Your task to perform on an android device: Clear the cart on bestbuy.com. Search for "razer blackwidow" on bestbuy.com, select the first entry, add it to the cart, then select checkout. Image 0: 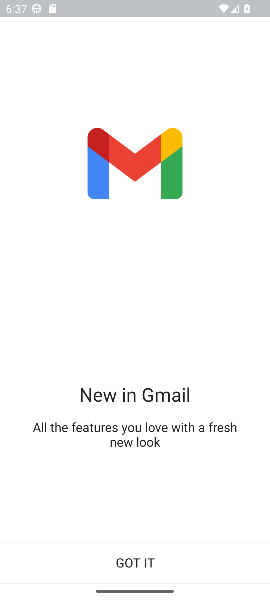
Step 0: press home button
Your task to perform on an android device: Clear the cart on bestbuy.com. Search for "razer blackwidow" on bestbuy.com, select the first entry, add it to the cart, then select checkout. Image 1: 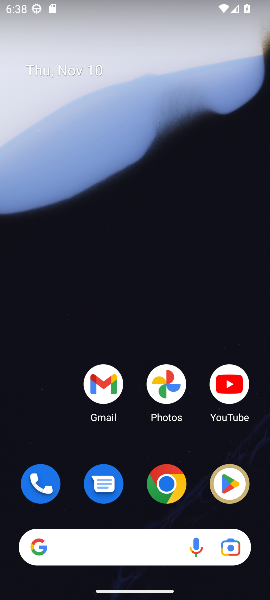
Step 1: click (169, 487)
Your task to perform on an android device: Clear the cart on bestbuy.com. Search for "razer blackwidow" on bestbuy.com, select the first entry, add it to the cart, then select checkout. Image 2: 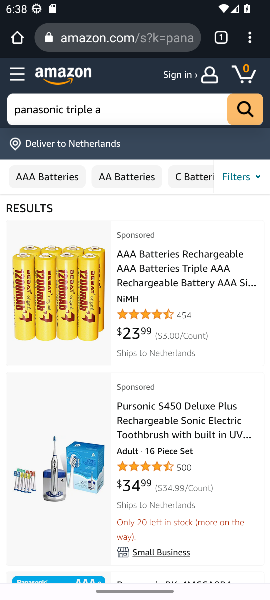
Step 2: click (102, 44)
Your task to perform on an android device: Clear the cart on bestbuy.com. Search for "razer blackwidow" on bestbuy.com, select the first entry, add it to the cart, then select checkout. Image 3: 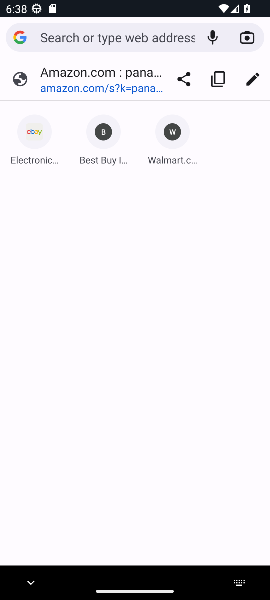
Step 3: click (100, 136)
Your task to perform on an android device: Clear the cart on bestbuy.com. Search for "razer blackwidow" on bestbuy.com, select the first entry, add it to the cart, then select checkout. Image 4: 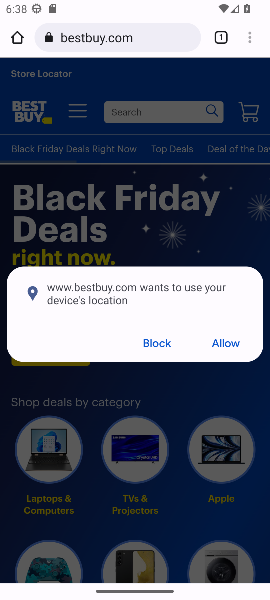
Step 4: click (154, 343)
Your task to perform on an android device: Clear the cart on bestbuy.com. Search for "razer blackwidow" on bestbuy.com, select the first entry, add it to the cart, then select checkout. Image 5: 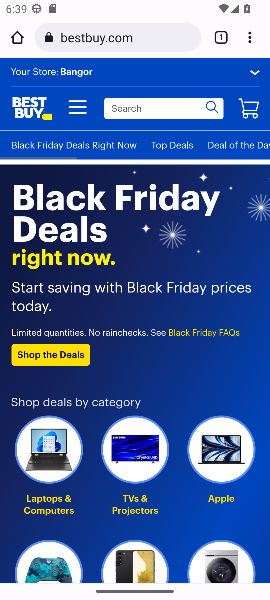
Step 5: click (247, 105)
Your task to perform on an android device: Clear the cart on bestbuy.com. Search for "razer blackwidow" on bestbuy.com, select the first entry, add it to the cart, then select checkout. Image 6: 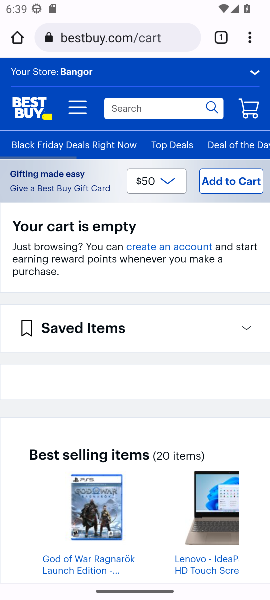
Step 6: click (154, 111)
Your task to perform on an android device: Clear the cart on bestbuy.com. Search for "razer blackwidow" on bestbuy.com, select the first entry, add it to the cart, then select checkout. Image 7: 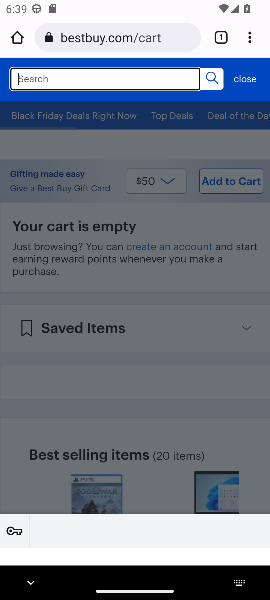
Step 7: type "razer blackwidow"
Your task to perform on an android device: Clear the cart on bestbuy.com. Search for "razer blackwidow" on bestbuy.com, select the first entry, add it to the cart, then select checkout. Image 8: 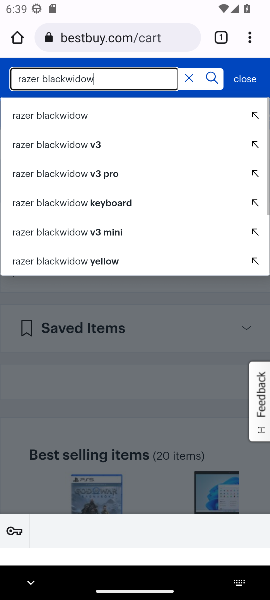
Step 8: click (67, 125)
Your task to perform on an android device: Clear the cart on bestbuy.com. Search for "razer blackwidow" on bestbuy.com, select the first entry, add it to the cart, then select checkout. Image 9: 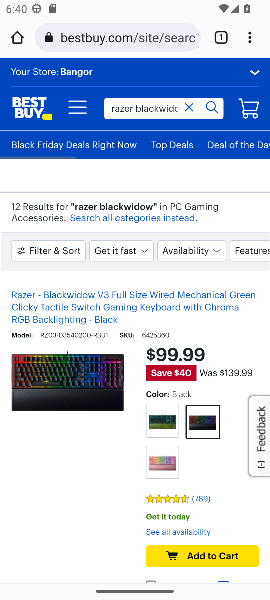
Step 9: click (188, 556)
Your task to perform on an android device: Clear the cart on bestbuy.com. Search for "razer blackwidow" on bestbuy.com, select the first entry, add it to the cart, then select checkout. Image 10: 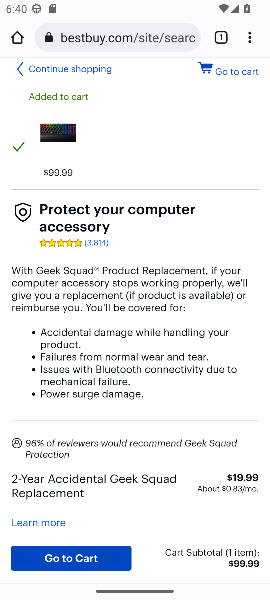
Step 10: drag from (141, 404) to (149, 190)
Your task to perform on an android device: Clear the cart on bestbuy.com. Search for "razer blackwidow" on bestbuy.com, select the first entry, add it to the cart, then select checkout. Image 11: 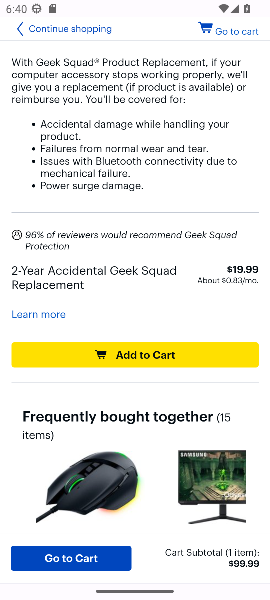
Step 11: drag from (149, 195) to (139, 599)
Your task to perform on an android device: Clear the cart on bestbuy.com. Search for "razer blackwidow" on bestbuy.com, select the first entry, add it to the cart, then select checkout. Image 12: 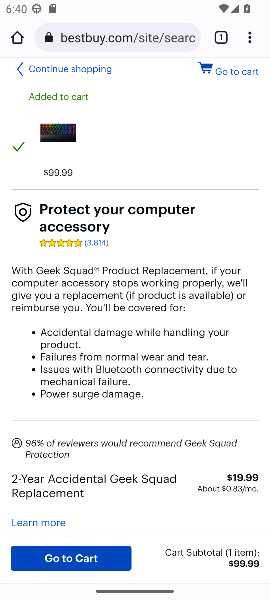
Step 12: click (247, 61)
Your task to perform on an android device: Clear the cart on bestbuy.com. Search for "razer blackwidow" on bestbuy.com, select the first entry, add it to the cart, then select checkout. Image 13: 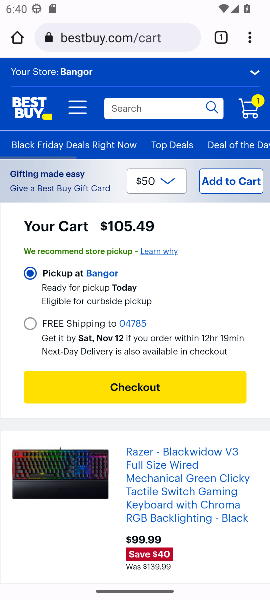
Step 13: click (122, 379)
Your task to perform on an android device: Clear the cart on bestbuy.com. Search for "razer blackwidow" on bestbuy.com, select the first entry, add it to the cart, then select checkout. Image 14: 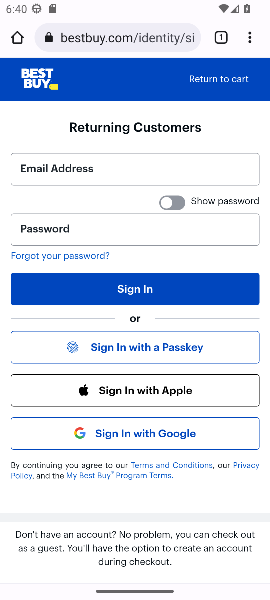
Step 14: task complete